Your task to perform on an android device: Check the weather Image 0: 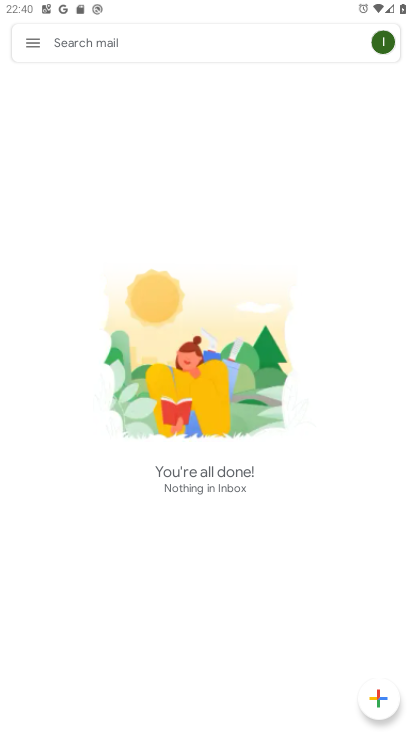
Step 0: press home button
Your task to perform on an android device: Check the weather Image 1: 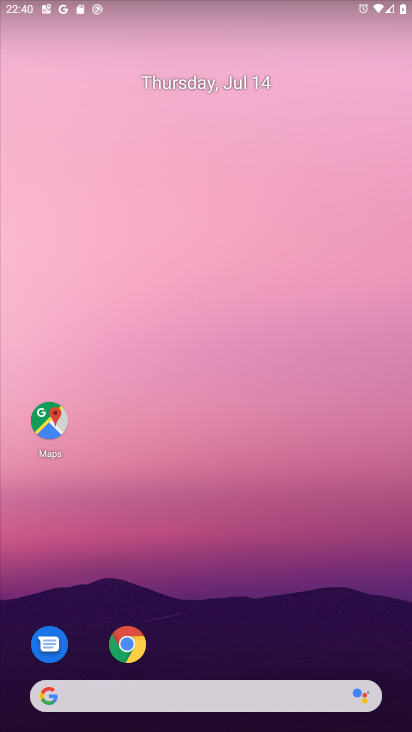
Step 1: click (121, 695)
Your task to perform on an android device: Check the weather Image 2: 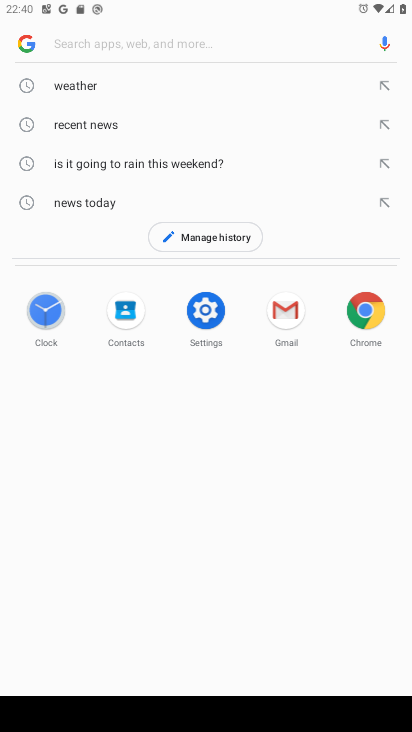
Step 2: click (106, 95)
Your task to perform on an android device: Check the weather Image 3: 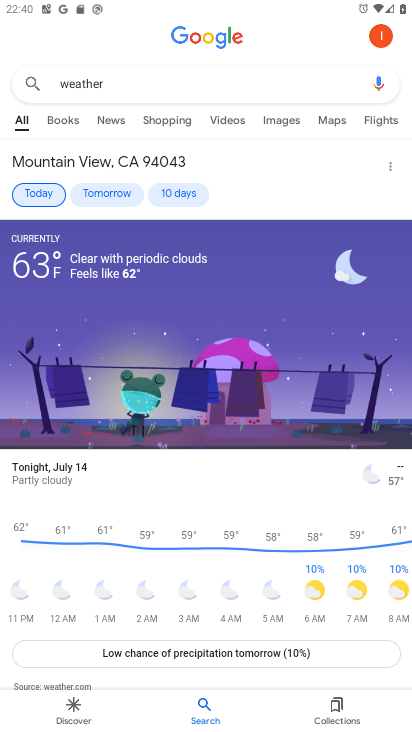
Step 3: task complete